Your task to perform on an android device: check data usage Image 0: 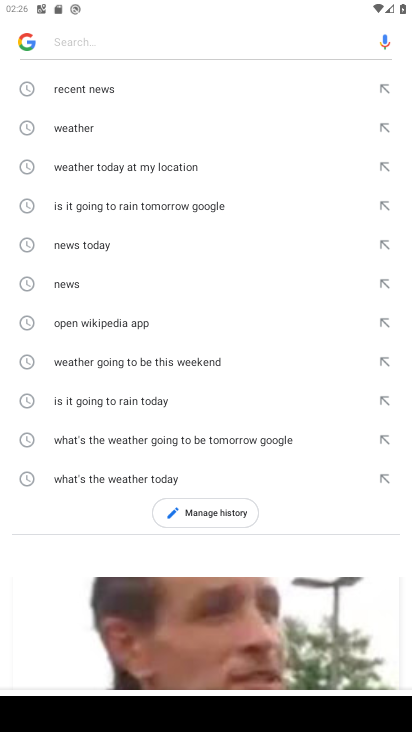
Step 0: press back button
Your task to perform on an android device: check data usage Image 1: 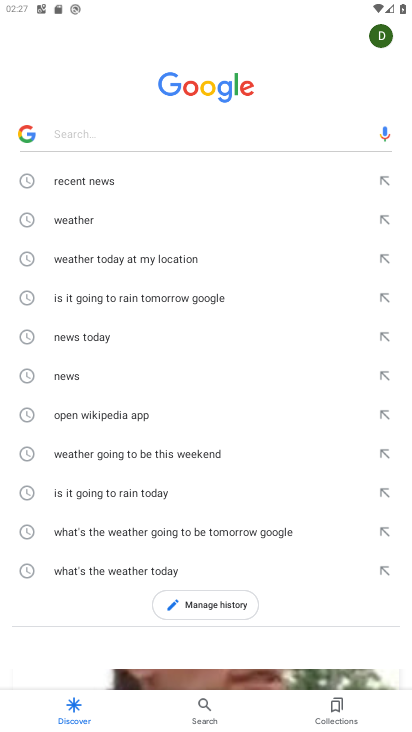
Step 1: press back button
Your task to perform on an android device: check data usage Image 2: 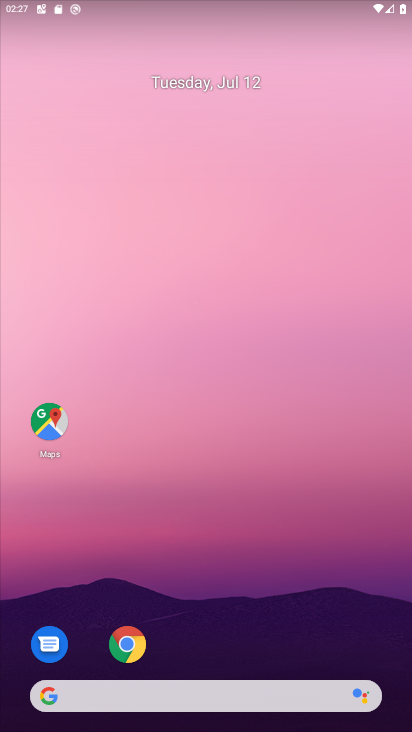
Step 2: drag from (198, 671) to (127, 14)
Your task to perform on an android device: check data usage Image 3: 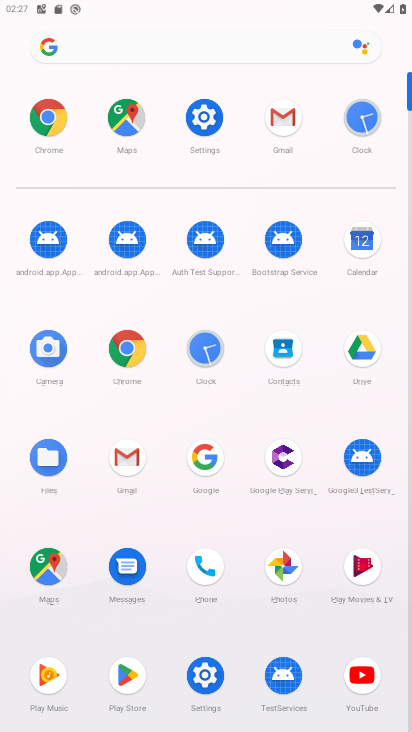
Step 3: click (198, 119)
Your task to perform on an android device: check data usage Image 4: 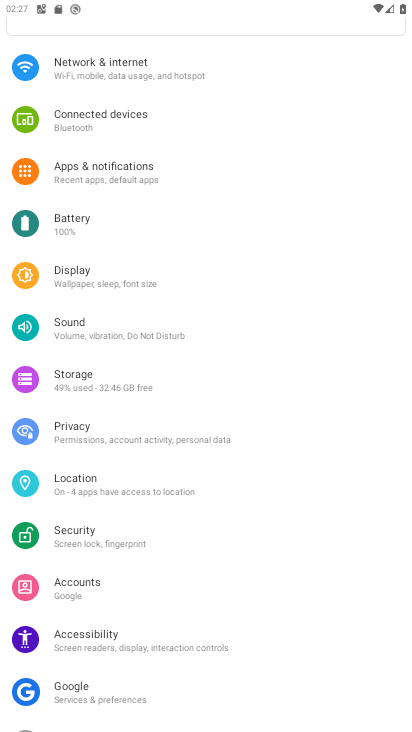
Step 4: click (112, 77)
Your task to perform on an android device: check data usage Image 5: 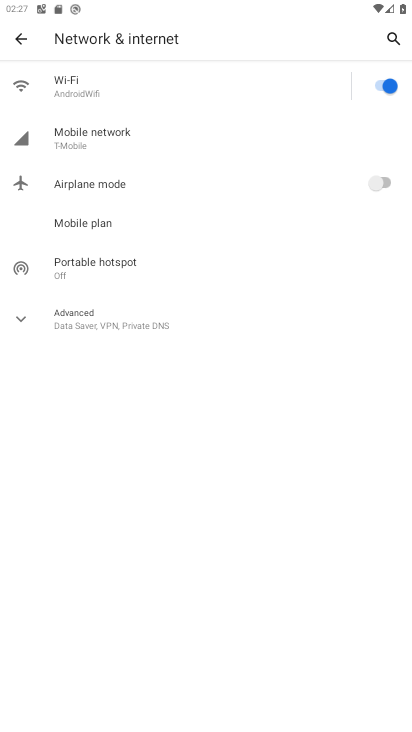
Step 5: click (100, 143)
Your task to perform on an android device: check data usage Image 6: 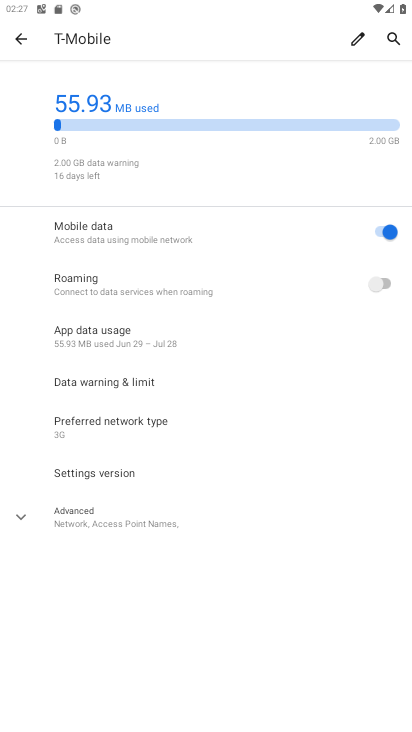
Step 6: task complete